Your task to perform on an android device: Search for seafood restaurants on Google Maps Image 0: 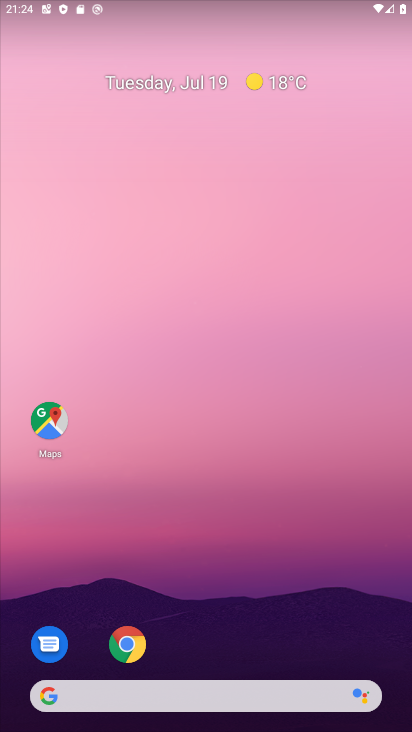
Step 0: drag from (220, 728) to (223, 138)
Your task to perform on an android device: Search for seafood restaurants on Google Maps Image 1: 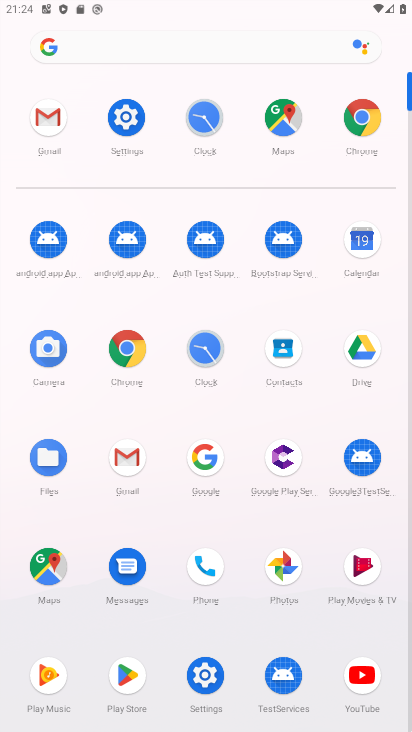
Step 1: click (55, 570)
Your task to perform on an android device: Search for seafood restaurants on Google Maps Image 2: 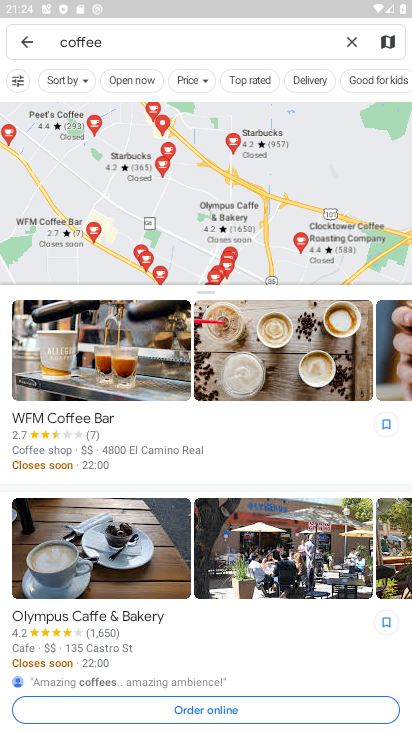
Step 2: click (351, 38)
Your task to perform on an android device: Search for seafood restaurants on Google Maps Image 3: 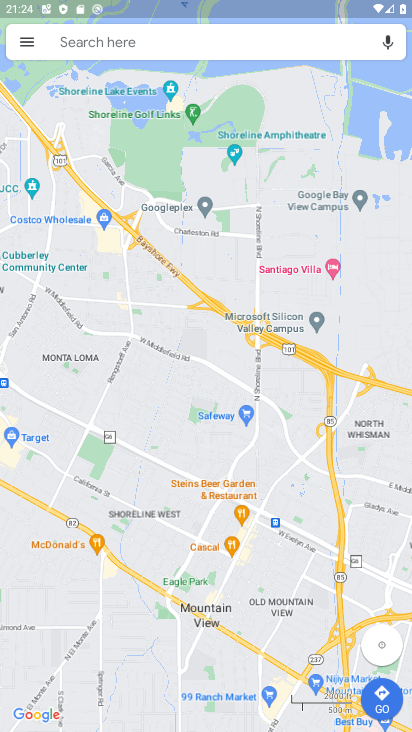
Step 3: click (171, 46)
Your task to perform on an android device: Search for seafood restaurants on Google Maps Image 4: 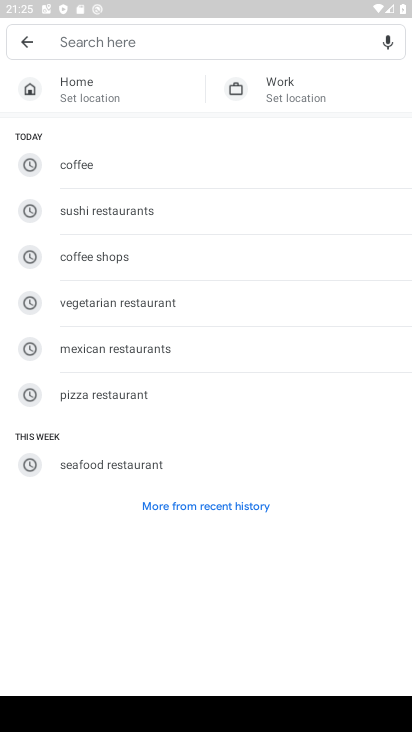
Step 4: type "seafood restaurants"
Your task to perform on an android device: Search for seafood restaurants on Google Maps Image 5: 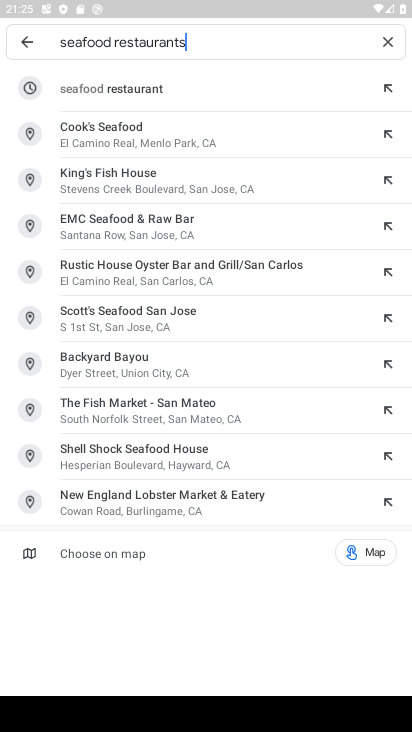
Step 5: click (135, 87)
Your task to perform on an android device: Search for seafood restaurants on Google Maps Image 6: 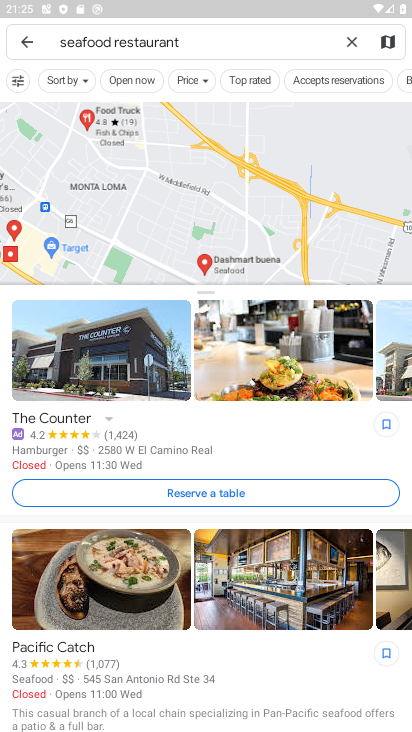
Step 6: task complete